Your task to perform on an android device: Clear the cart on amazon. Search for "energizer triple a" on amazon, select the first entry, add it to the cart, then select checkout. Image 0: 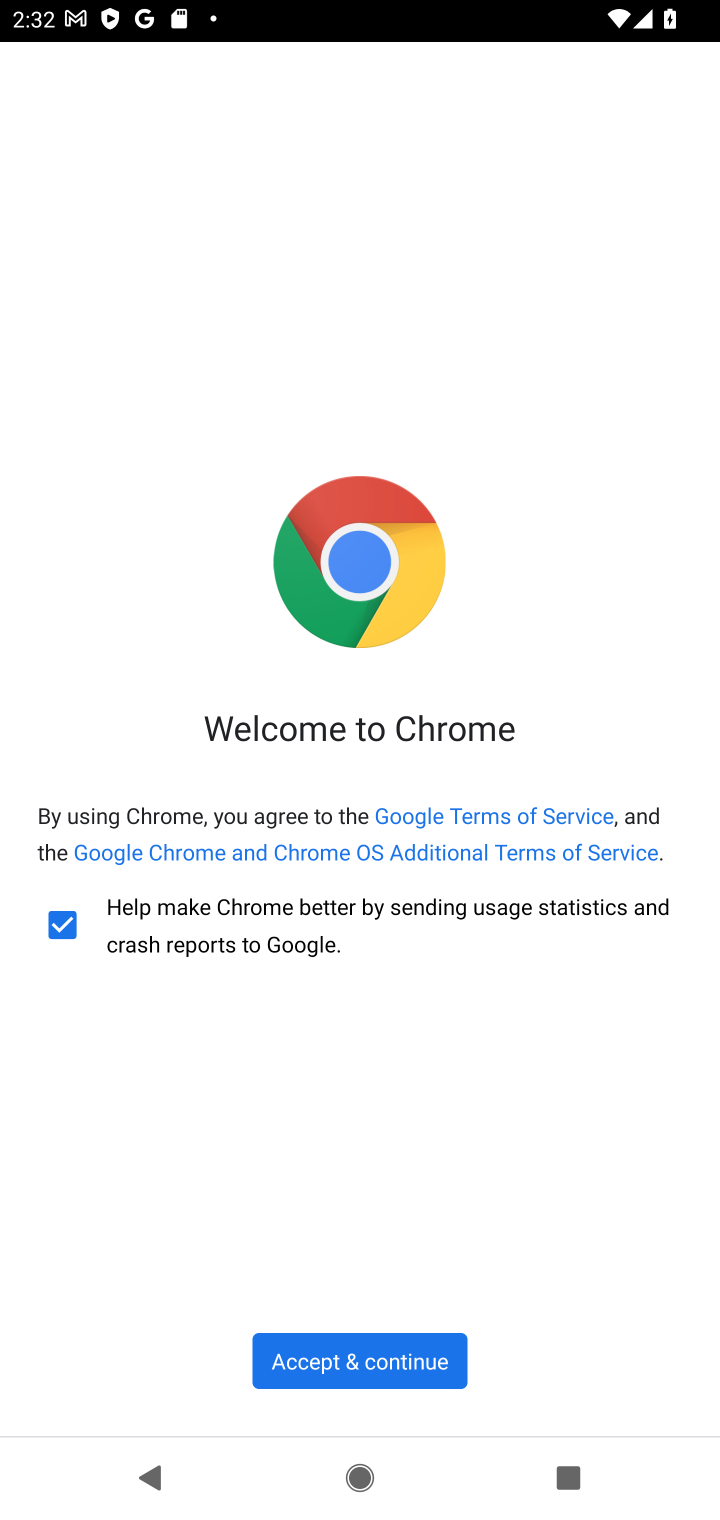
Step 0: click (355, 1353)
Your task to perform on an android device: Clear the cart on amazon. Search for "energizer triple a" on amazon, select the first entry, add it to the cart, then select checkout. Image 1: 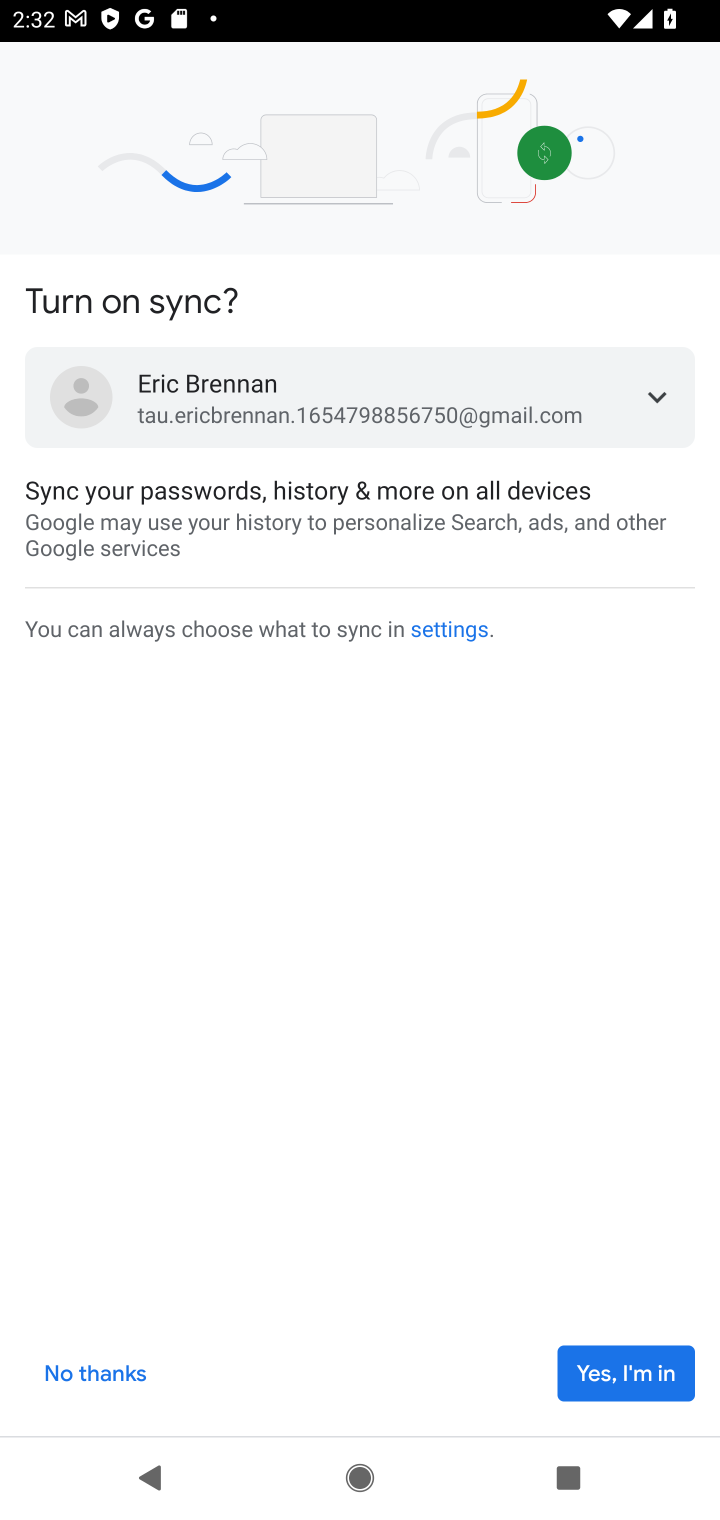
Step 1: click (605, 1362)
Your task to perform on an android device: Clear the cart on amazon. Search for "energizer triple a" on amazon, select the first entry, add it to the cart, then select checkout. Image 2: 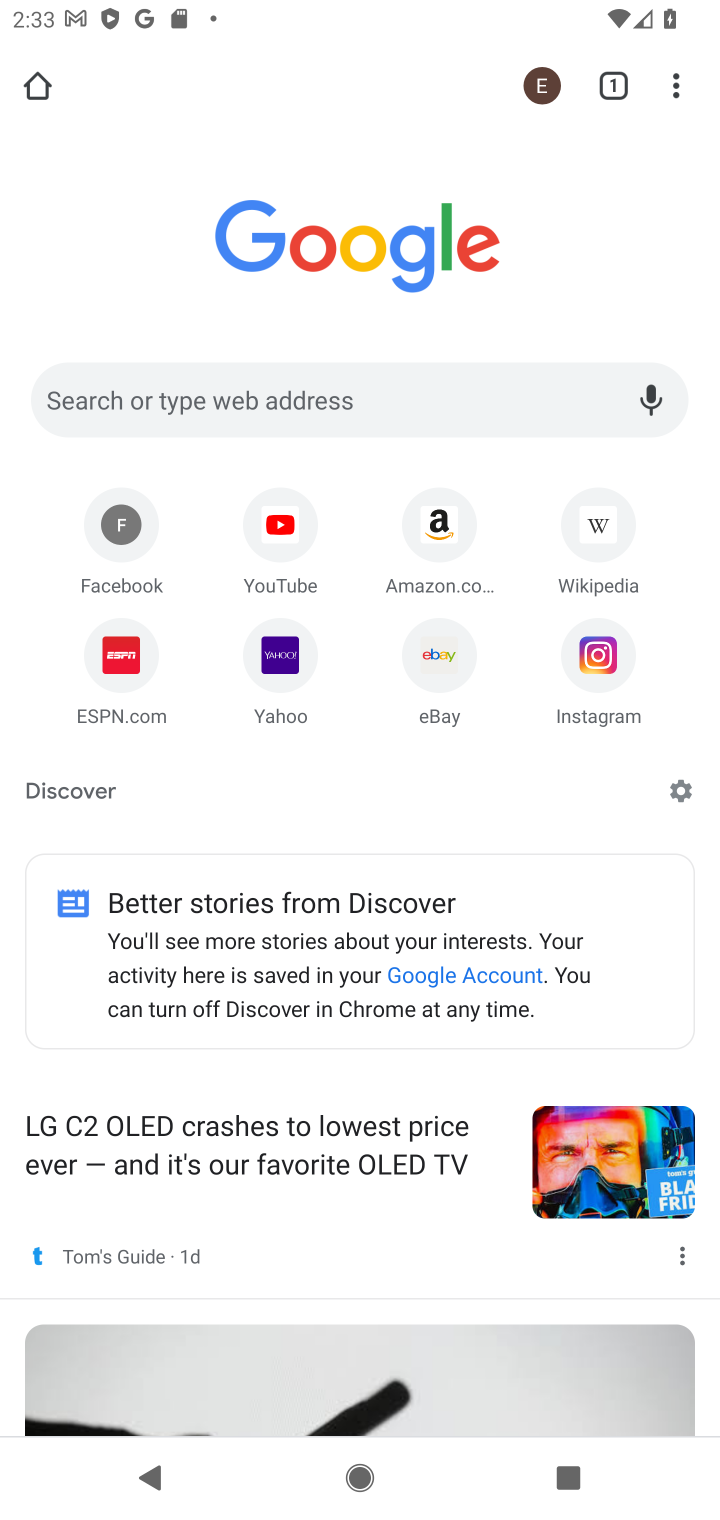
Step 2: click (317, 390)
Your task to perform on an android device: Clear the cart on amazon. Search for "energizer triple a" on amazon, select the first entry, add it to the cart, then select checkout. Image 3: 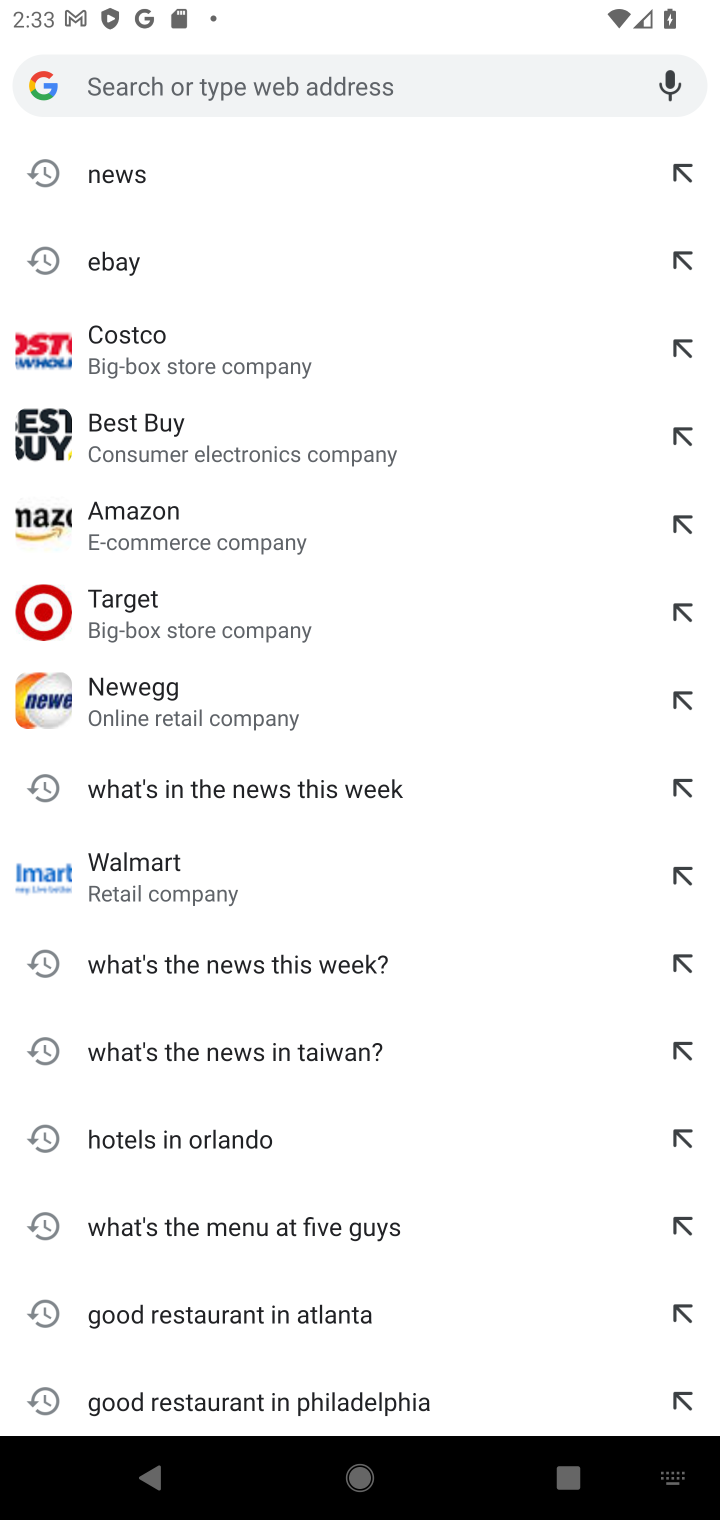
Step 3: type "amazon"
Your task to perform on an android device: Clear the cart on amazon. Search for "energizer triple a" on amazon, select the first entry, add it to the cart, then select checkout. Image 4: 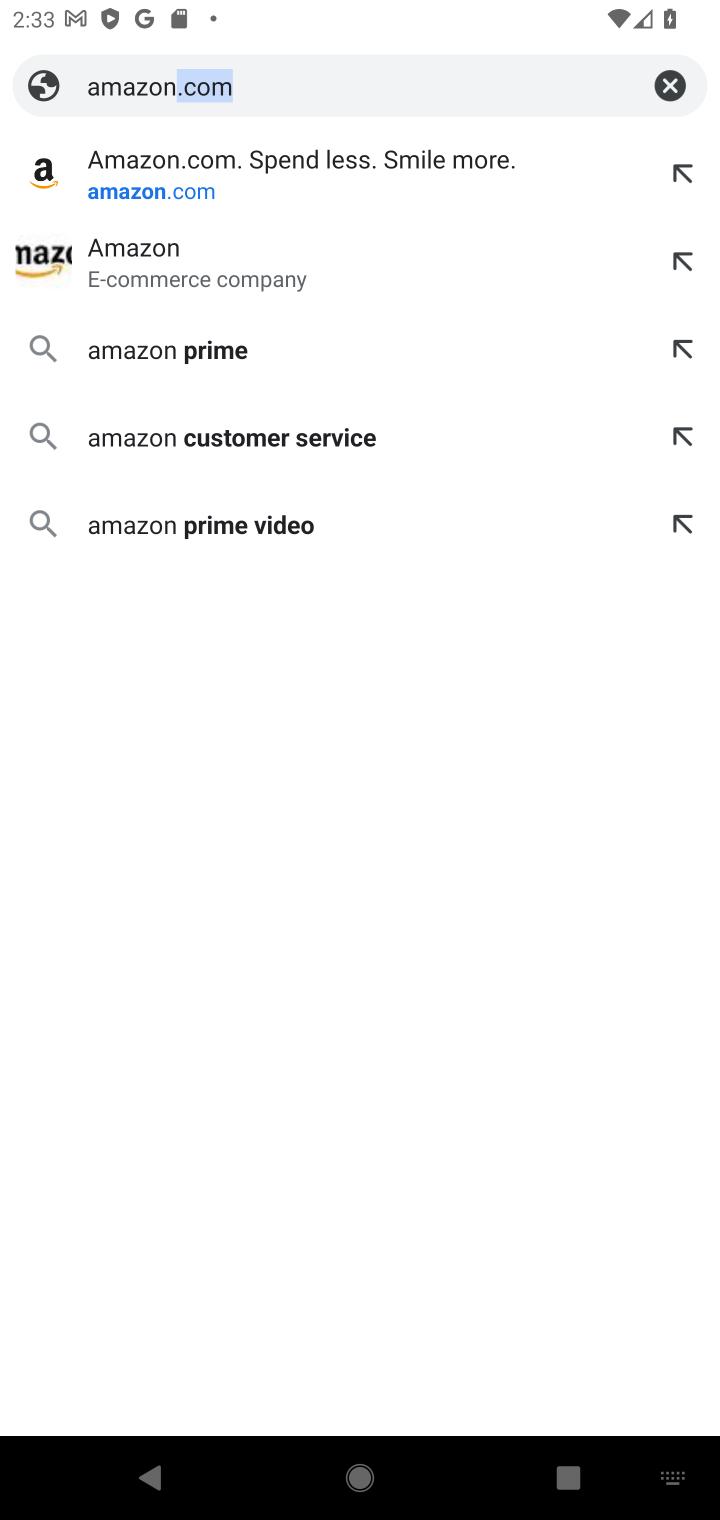
Step 4: click (193, 151)
Your task to perform on an android device: Clear the cart on amazon. Search for "energizer triple a" on amazon, select the first entry, add it to the cart, then select checkout. Image 5: 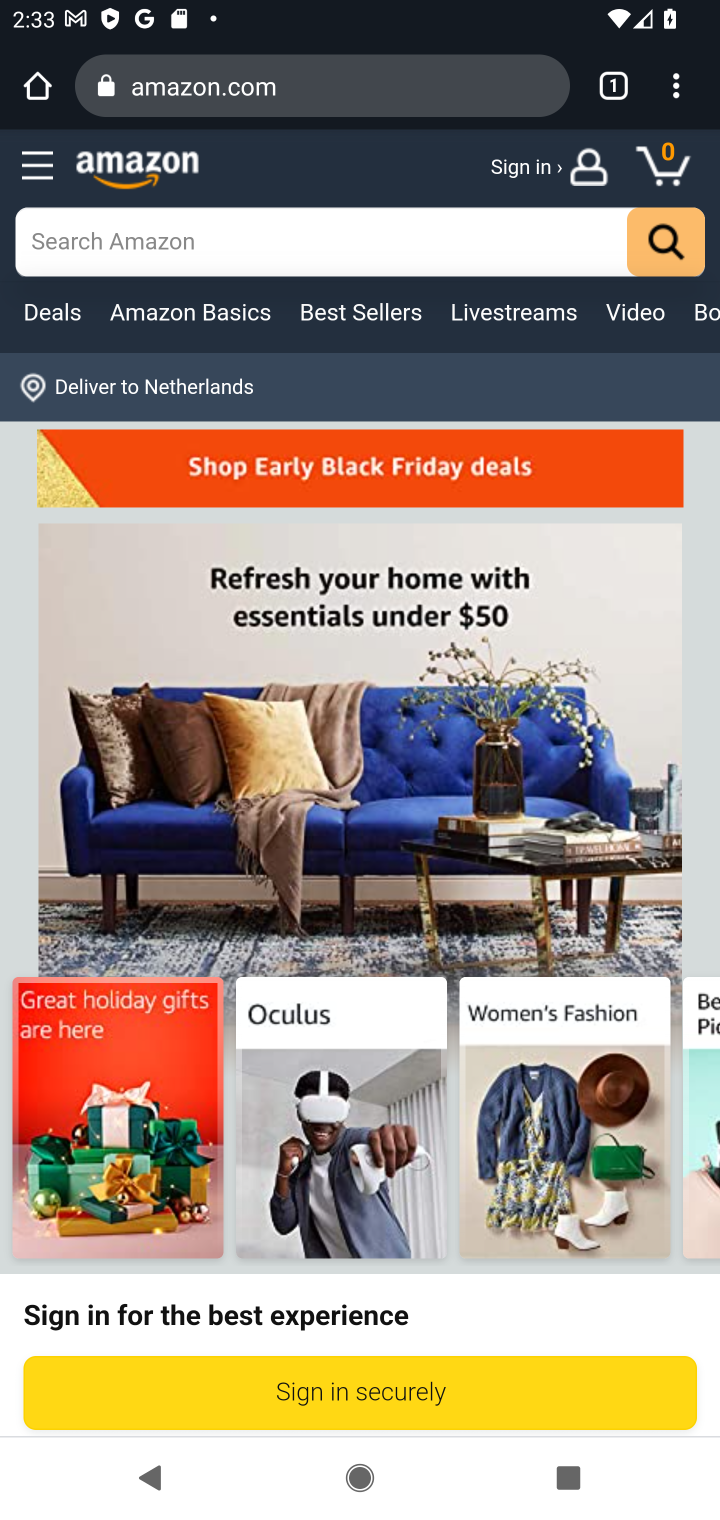
Step 5: click (665, 156)
Your task to perform on an android device: Clear the cart on amazon. Search for "energizer triple a" on amazon, select the first entry, add it to the cart, then select checkout. Image 6: 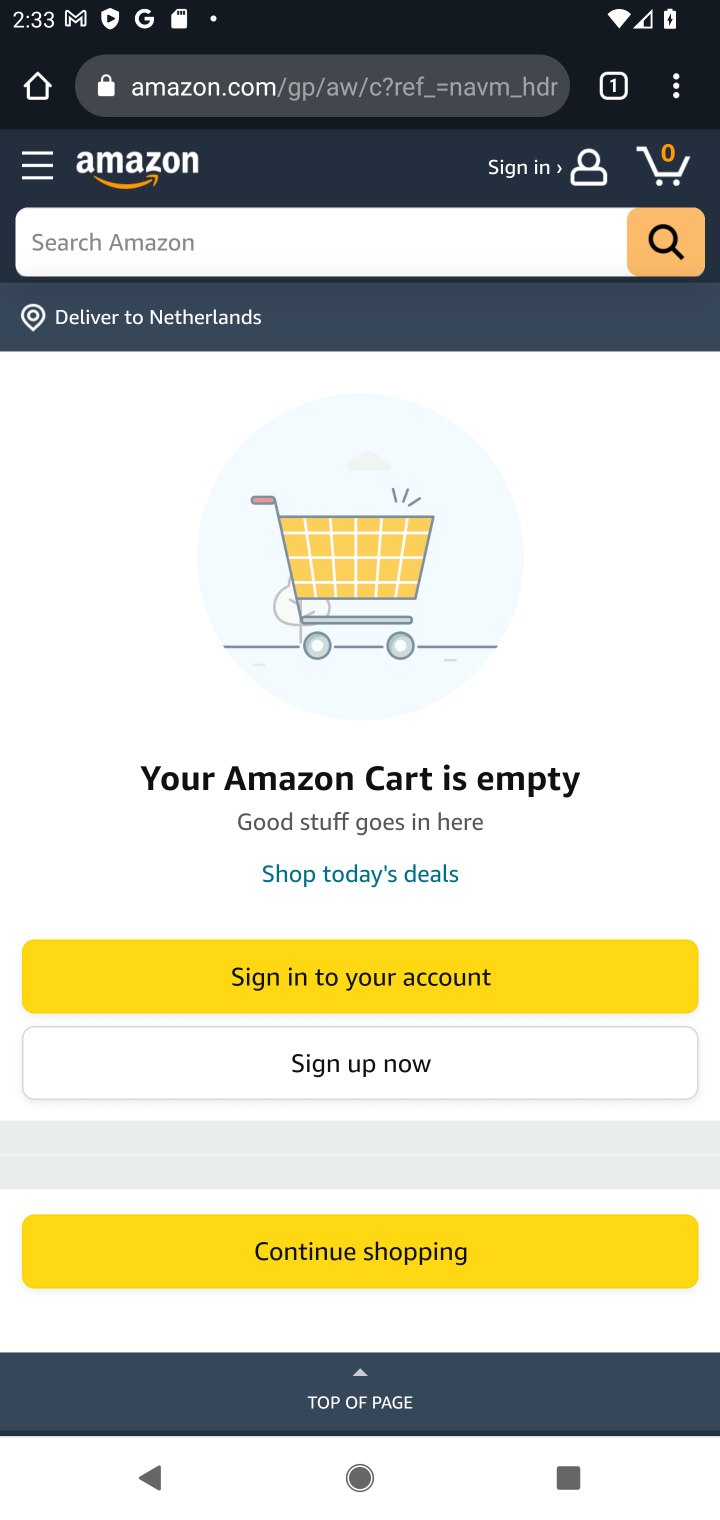
Step 6: click (268, 246)
Your task to perform on an android device: Clear the cart on amazon. Search for "energizer triple a" on amazon, select the first entry, add it to the cart, then select checkout. Image 7: 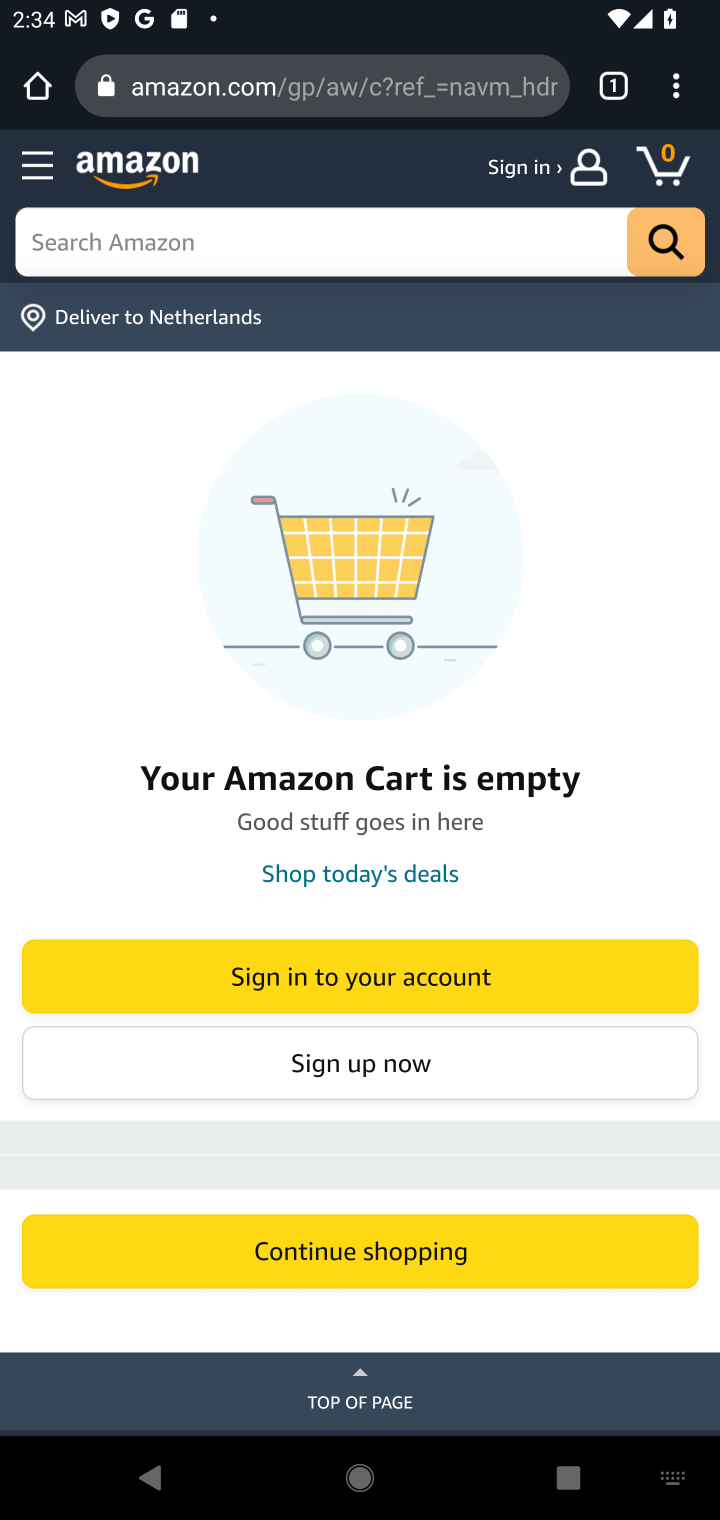
Step 7: type "energizer triple a"
Your task to perform on an android device: Clear the cart on amazon. Search for "energizer triple a" on amazon, select the first entry, add it to the cart, then select checkout. Image 8: 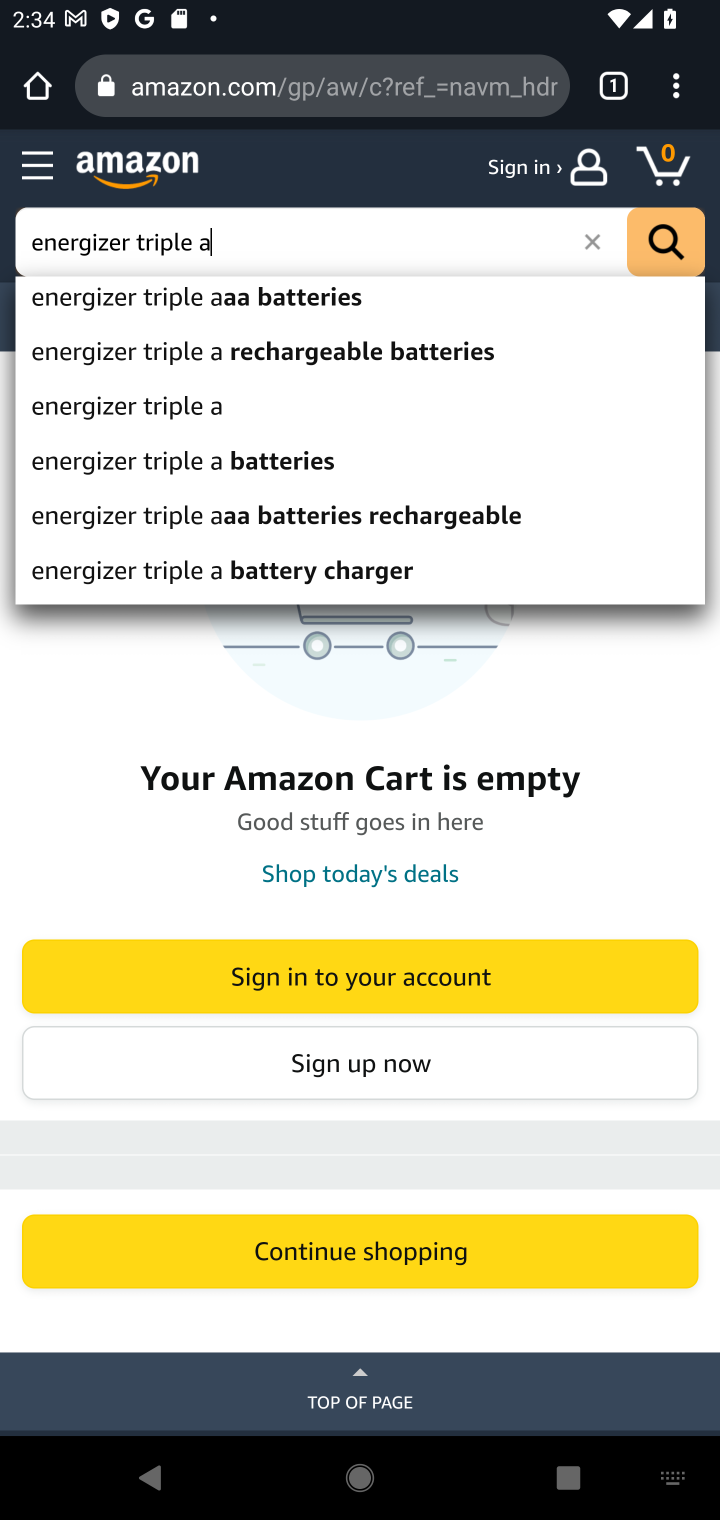
Step 8: press enter
Your task to perform on an android device: Clear the cart on amazon. Search for "energizer triple a" on amazon, select the first entry, add it to the cart, then select checkout. Image 9: 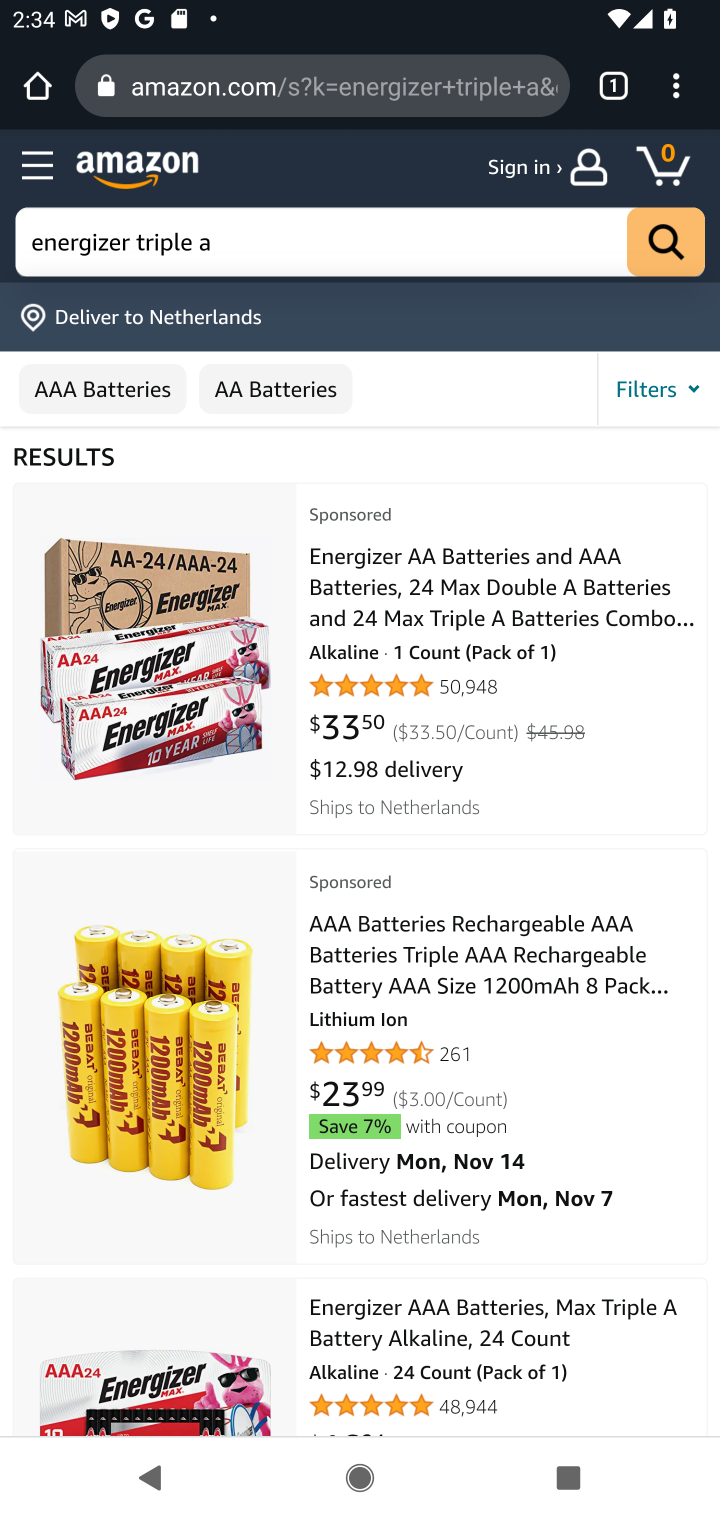
Step 9: click (227, 723)
Your task to perform on an android device: Clear the cart on amazon. Search for "energizer triple a" on amazon, select the first entry, add it to the cart, then select checkout. Image 10: 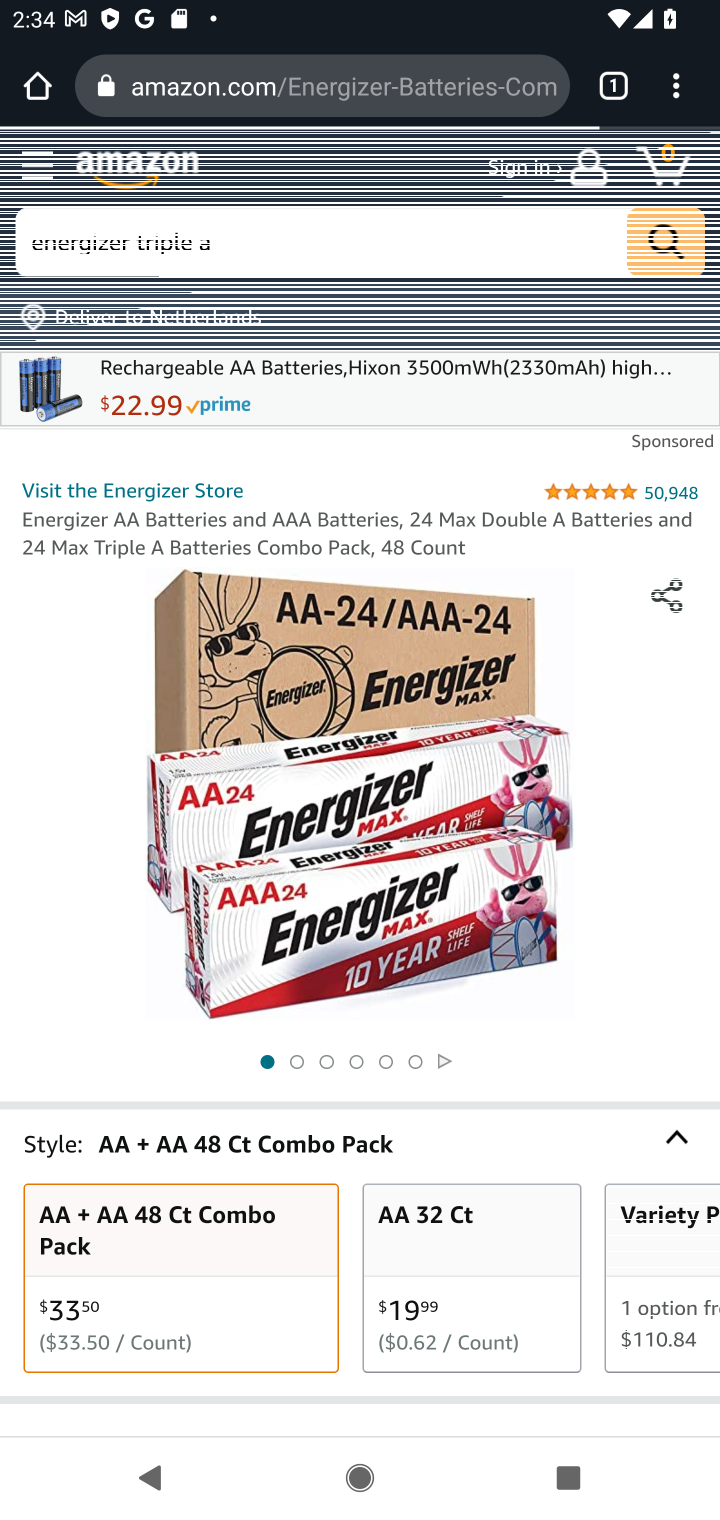
Step 10: drag from (555, 1253) to (487, 491)
Your task to perform on an android device: Clear the cart on amazon. Search for "energizer triple a" on amazon, select the first entry, add it to the cart, then select checkout. Image 11: 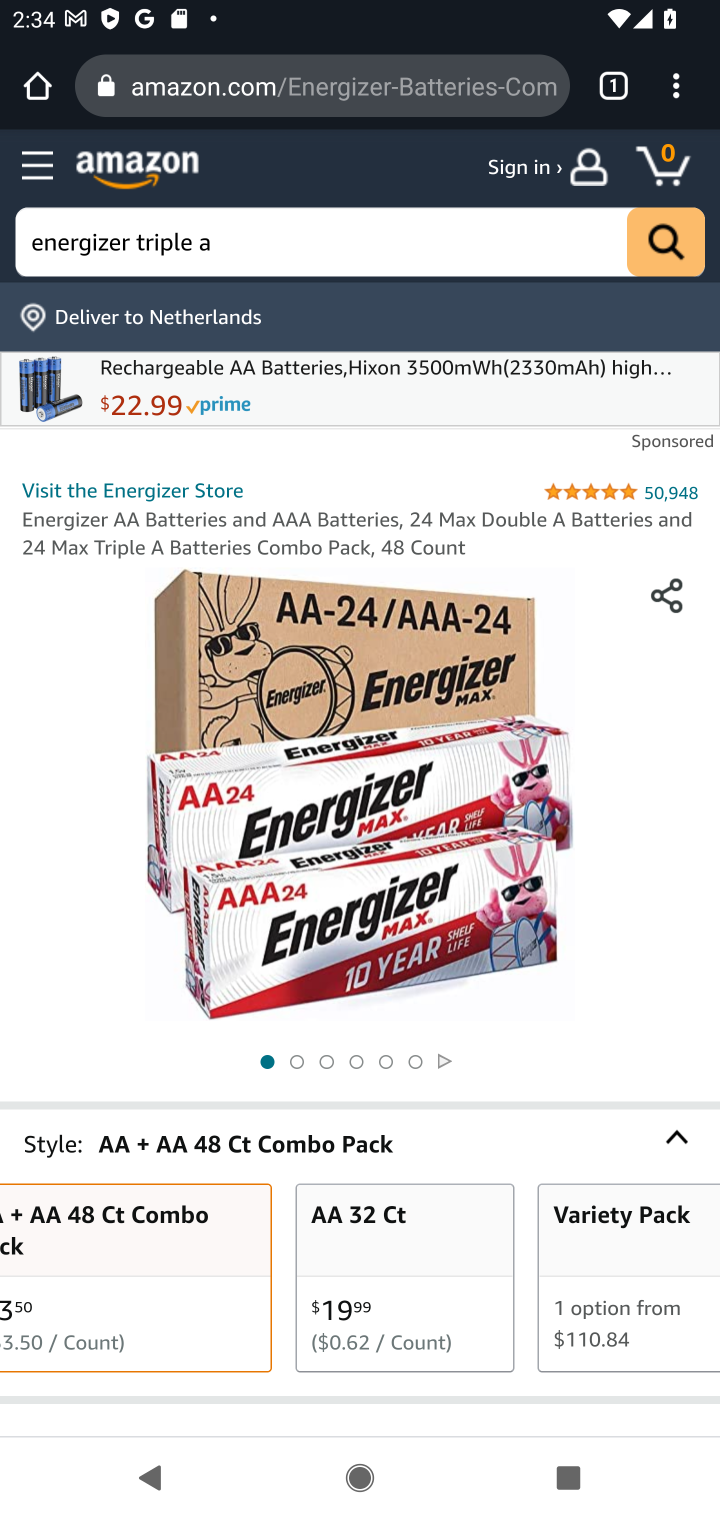
Step 11: drag from (486, 1074) to (407, 391)
Your task to perform on an android device: Clear the cart on amazon. Search for "energizer triple a" on amazon, select the first entry, add it to the cart, then select checkout. Image 12: 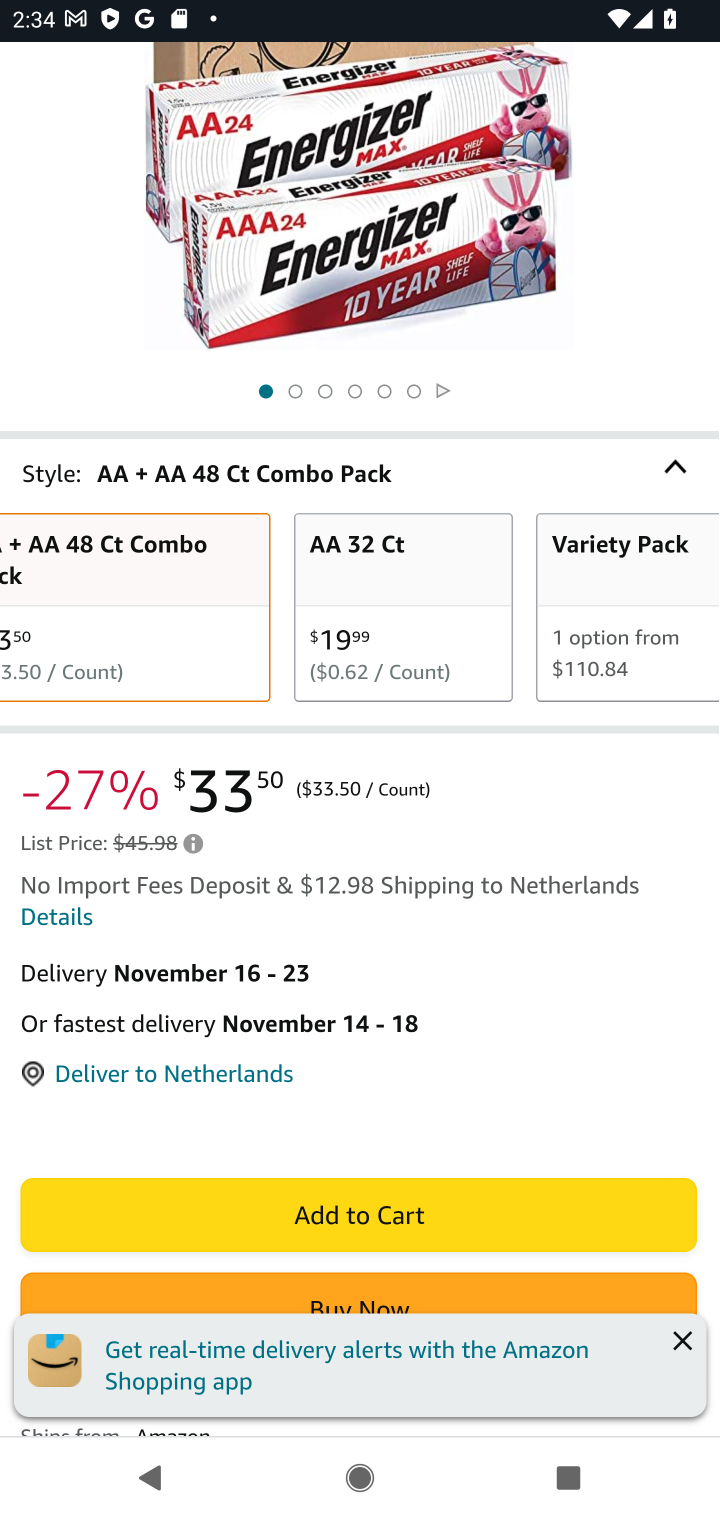
Step 12: click (379, 1208)
Your task to perform on an android device: Clear the cart on amazon. Search for "energizer triple a" on amazon, select the first entry, add it to the cart, then select checkout. Image 13: 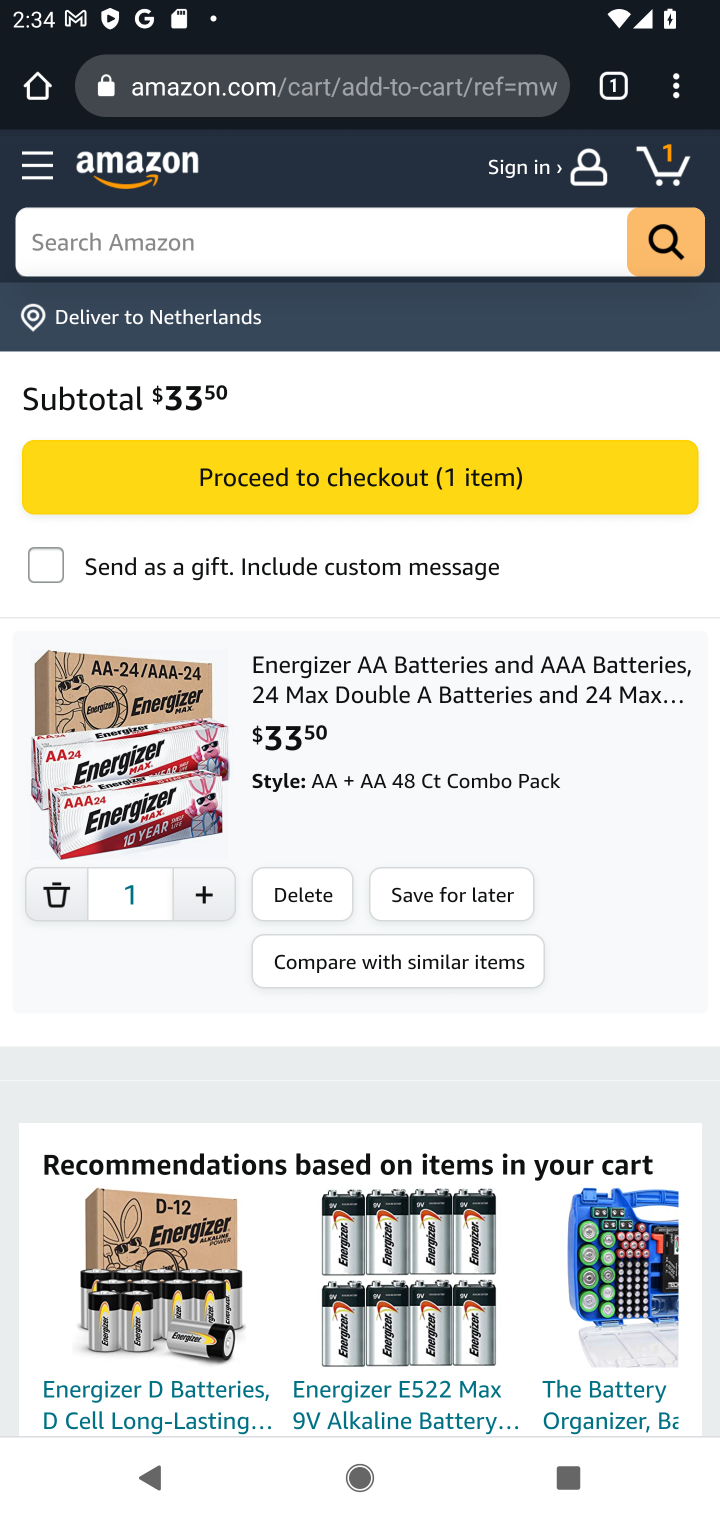
Step 13: click (491, 491)
Your task to perform on an android device: Clear the cart on amazon. Search for "energizer triple a" on amazon, select the first entry, add it to the cart, then select checkout. Image 14: 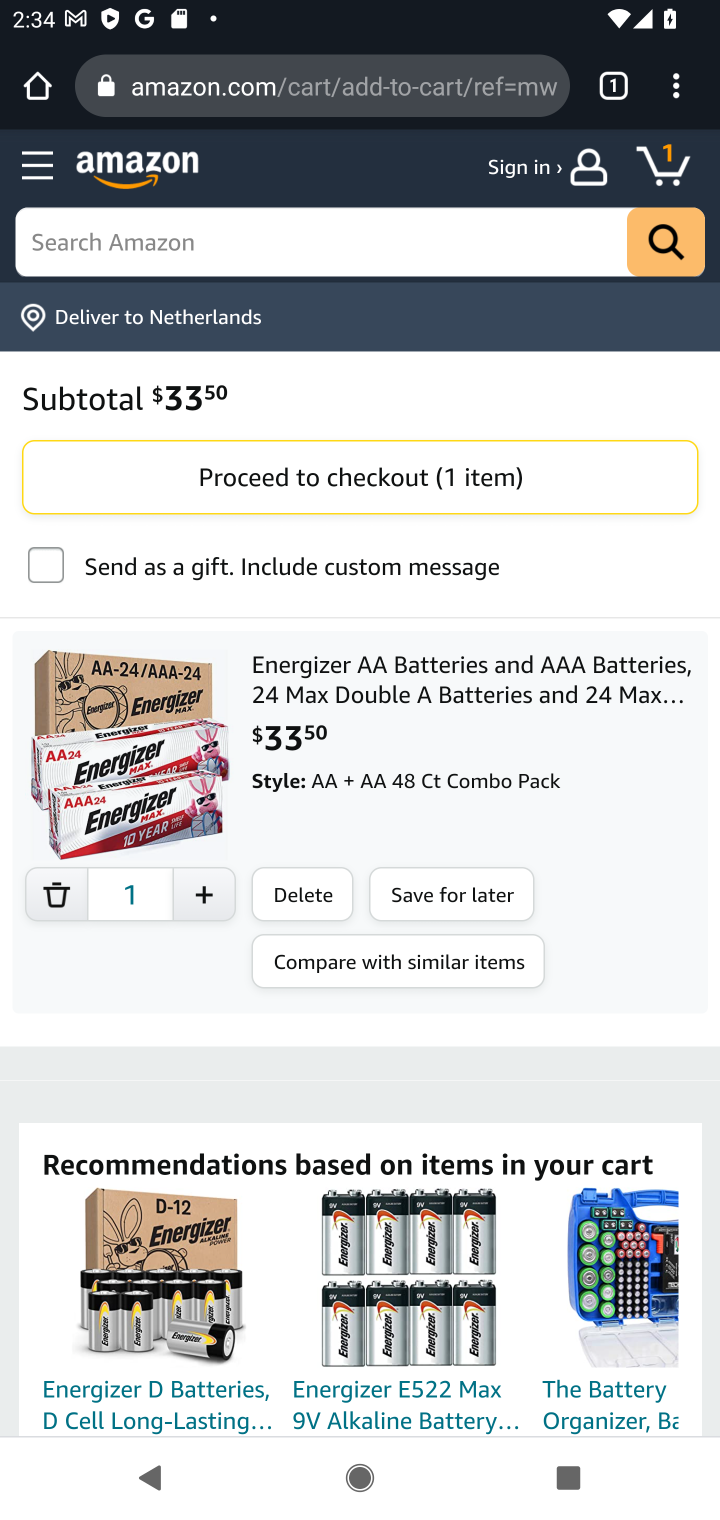
Step 14: task complete